Your task to perform on an android device: Open the phone app and click the voicemail tab. Image 0: 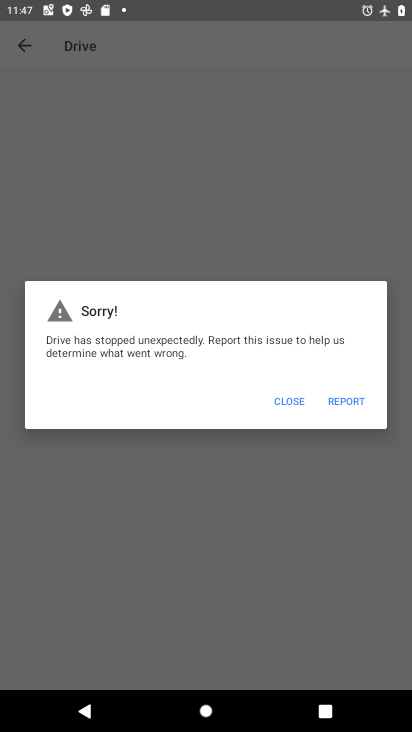
Step 0: press home button
Your task to perform on an android device: Open the phone app and click the voicemail tab. Image 1: 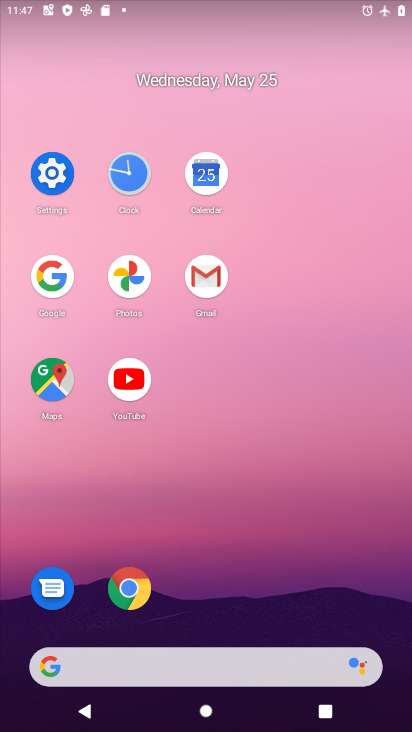
Step 1: drag from (283, 543) to (263, 197)
Your task to perform on an android device: Open the phone app and click the voicemail tab. Image 2: 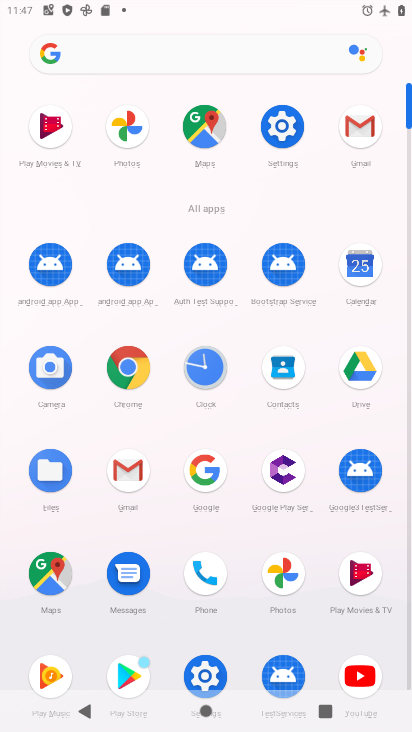
Step 2: click (200, 579)
Your task to perform on an android device: Open the phone app and click the voicemail tab. Image 3: 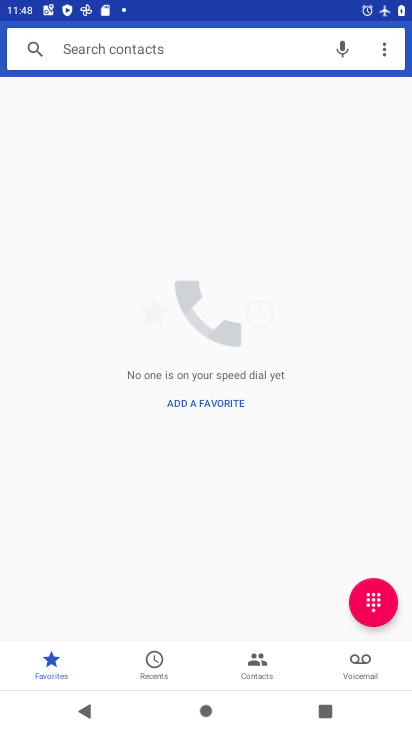
Step 3: click (361, 675)
Your task to perform on an android device: Open the phone app and click the voicemail tab. Image 4: 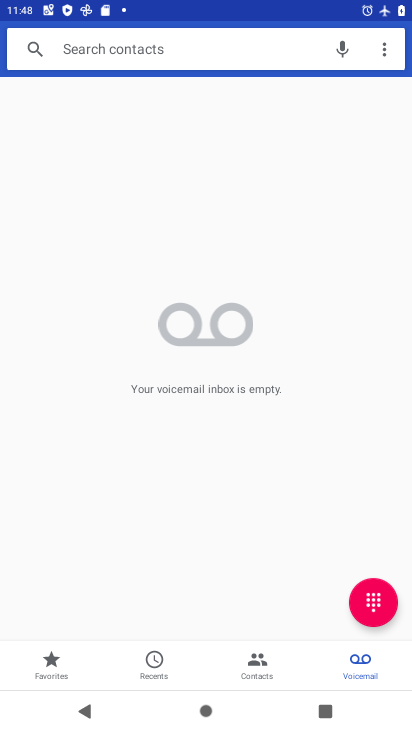
Step 4: task complete